Your task to perform on an android device: Go to Android settings Image 0: 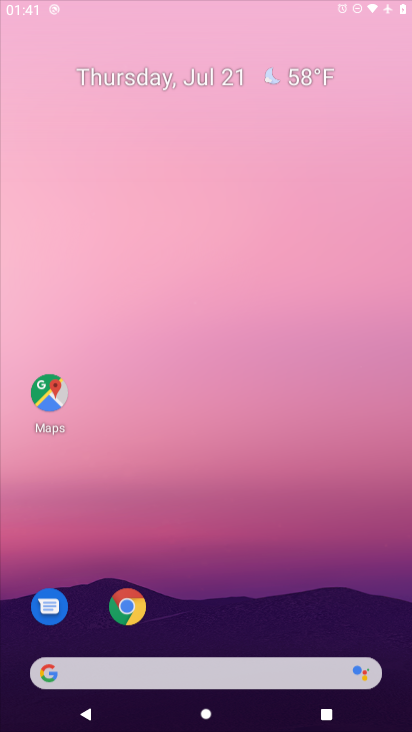
Step 0: press home button
Your task to perform on an android device: Go to Android settings Image 1: 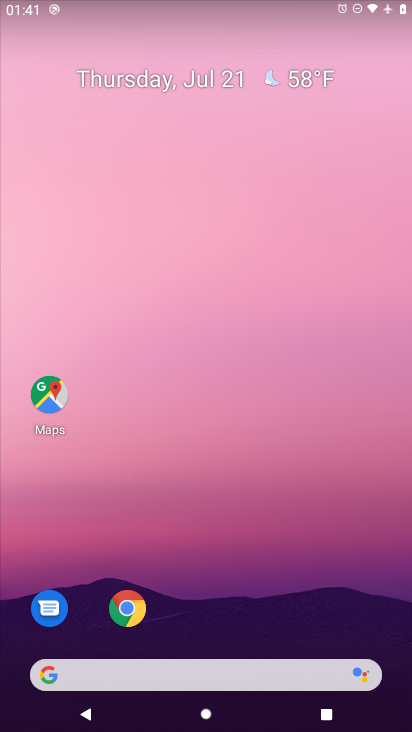
Step 1: drag from (242, 632) to (239, 30)
Your task to perform on an android device: Go to Android settings Image 2: 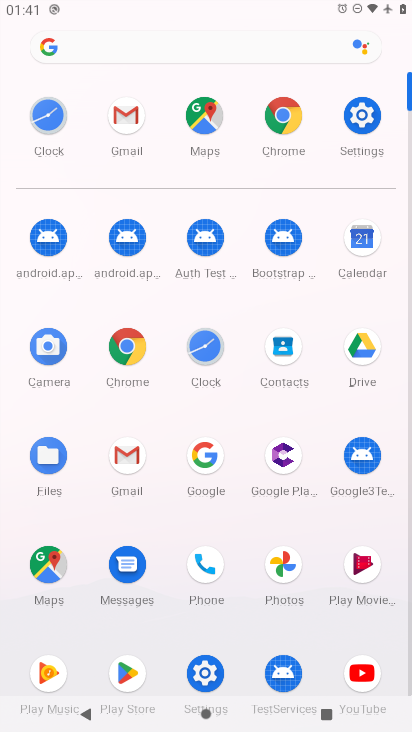
Step 2: click (363, 118)
Your task to perform on an android device: Go to Android settings Image 3: 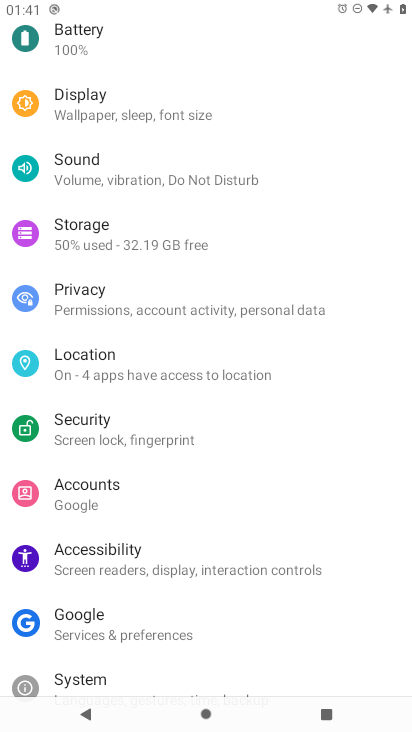
Step 3: task complete